Your task to perform on an android device: change the clock display to digital Image 0: 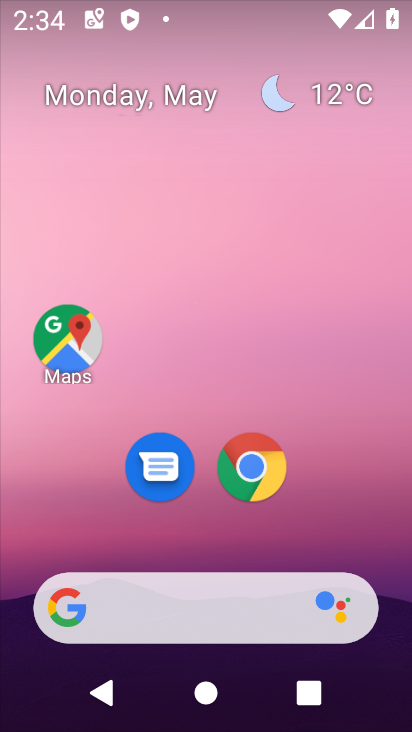
Step 0: drag from (364, 574) to (334, 164)
Your task to perform on an android device: change the clock display to digital Image 1: 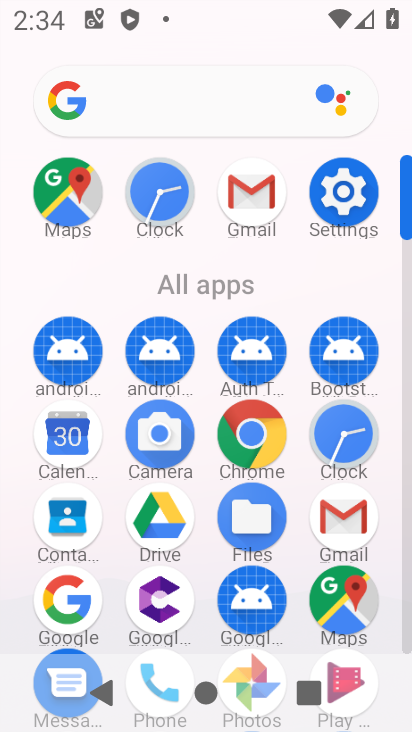
Step 1: click (140, 212)
Your task to perform on an android device: change the clock display to digital Image 2: 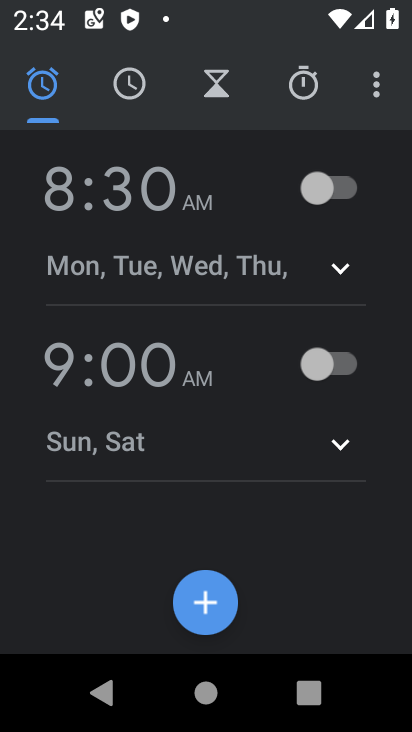
Step 2: click (380, 73)
Your task to perform on an android device: change the clock display to digital Image 3: 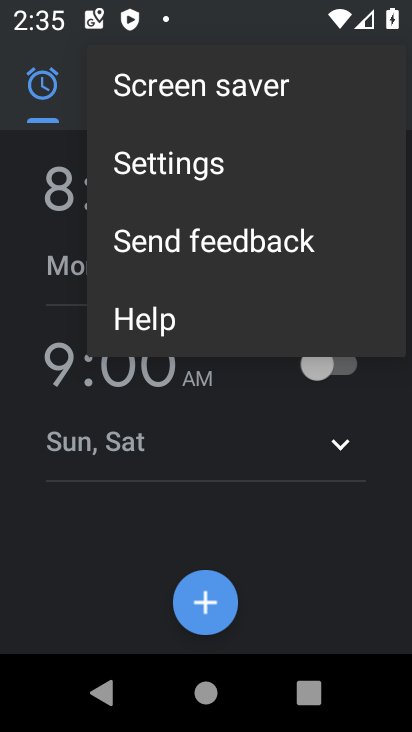
Step 3: click (253, 157)
Your task to perform on an android device: change the clock display to digital Image 4: 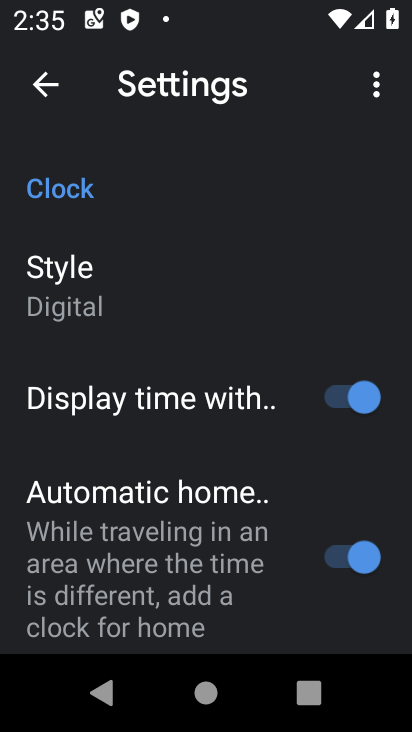
Step 4: task complete